Your task to perform on an android device: open the mobile data screen to see how much data has been used Image 0: 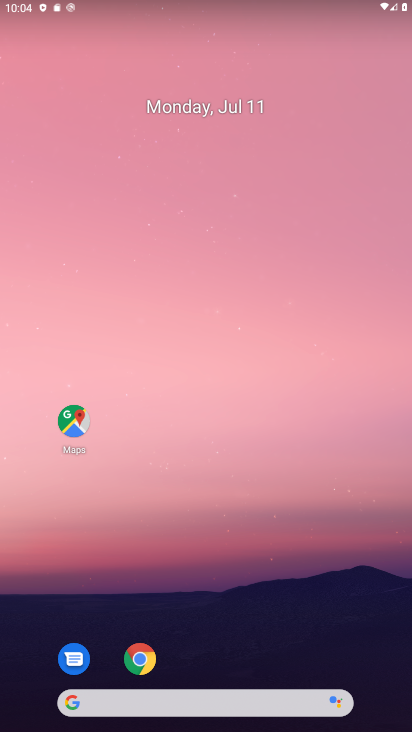
Step 0: drag from (218, 655) to (328, 242)
Your task to perform on an android device: open the mobile data screen to see how much data has been used Image 1: 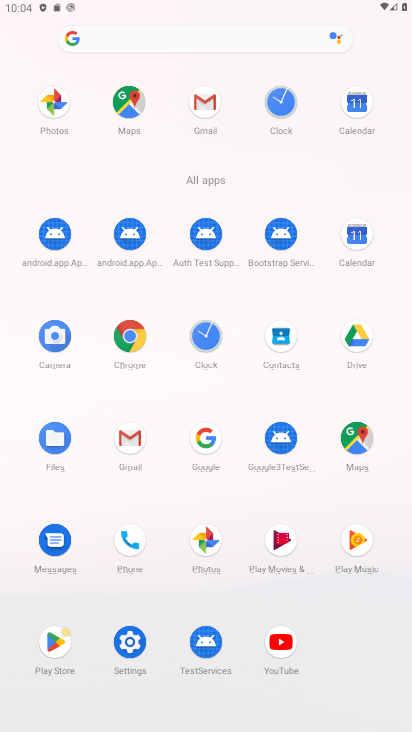
Step 1: click (114, 640)
Your task to perform on an android device: open the mobile data screen to see how much data has been used Image 2: 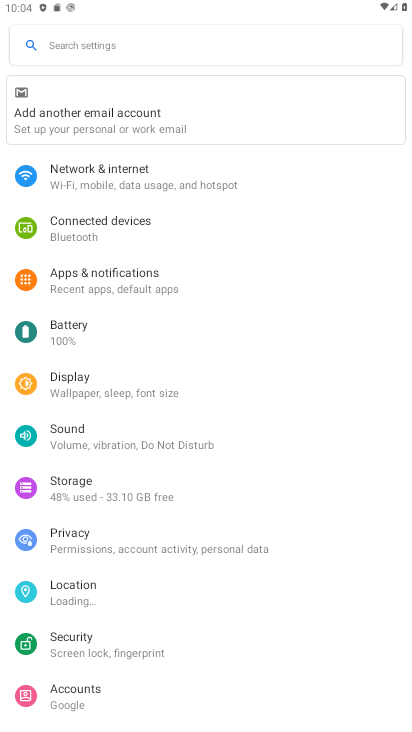
Step 2: click (161, 187)
Your task to perform on an android device: open the mobile data screen to see how much data has been used Image 3: 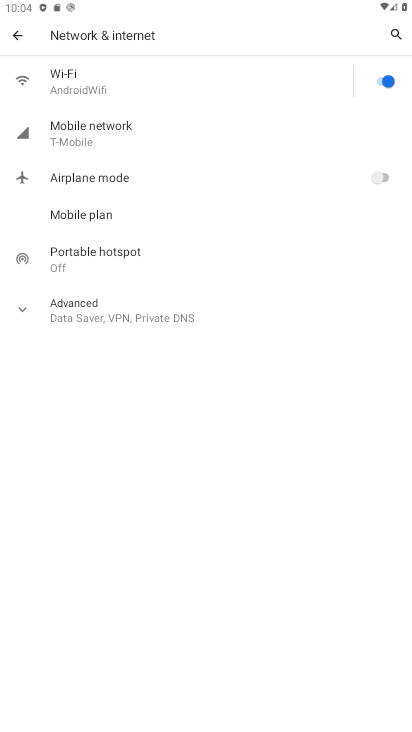
Step 3: click (125, 121)
Your task to perform on an android device: open the mobile data screen to see how much data has been used Image 4: 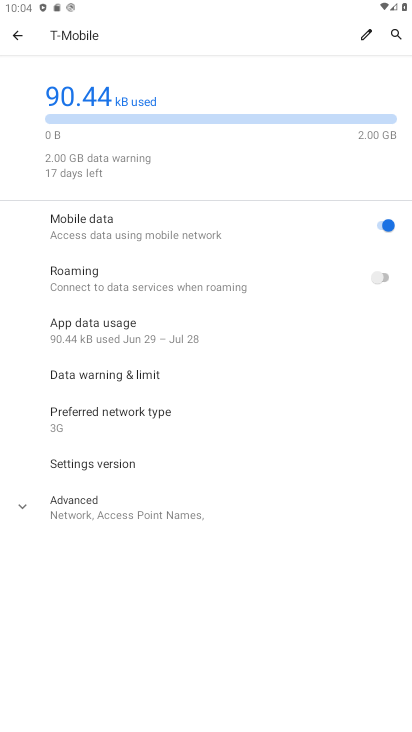
Step 4: task complete